Your task to perform on an android device: Go to location settings Image 0: 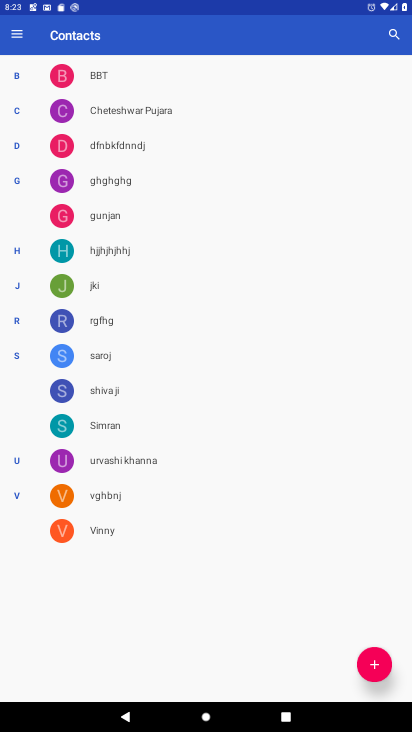
Step 0: press home button
Your task to perform on an android device: Go to location settings Image 1: 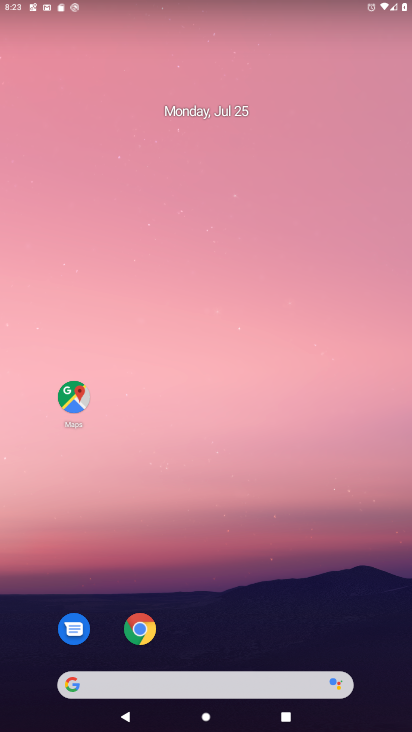
Step 1: drag from (199, 683) to (269, 30)
Your task to perform on an android device: Go to location settings Image 2: 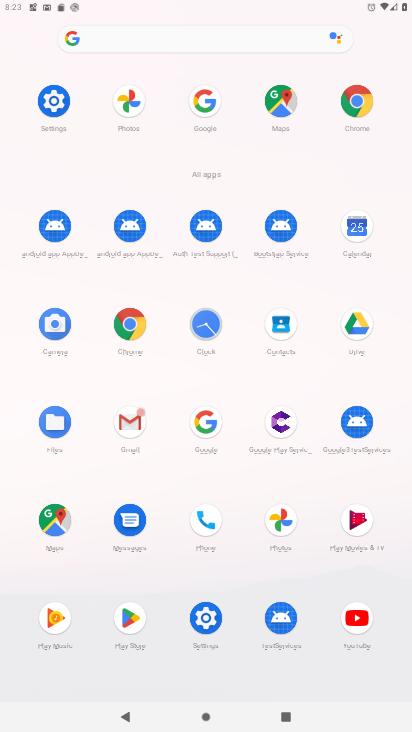
Step 2: click (51, 101)
Your task to perform on an android device: Go to location settings Image 3: 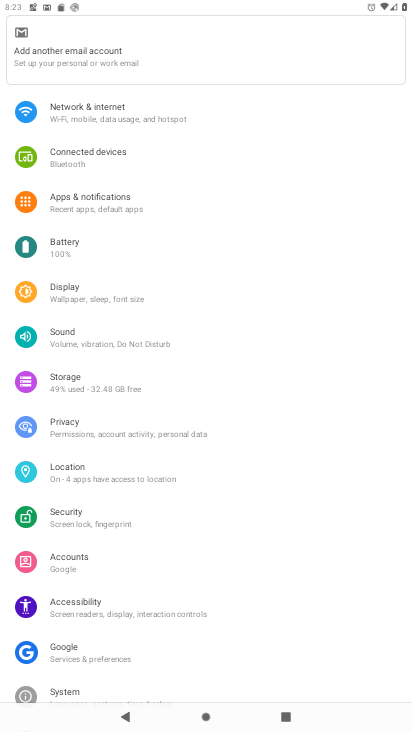
Step 3: click (86, 474)
Your task to perform on an android device: Go to location settings Image 4: 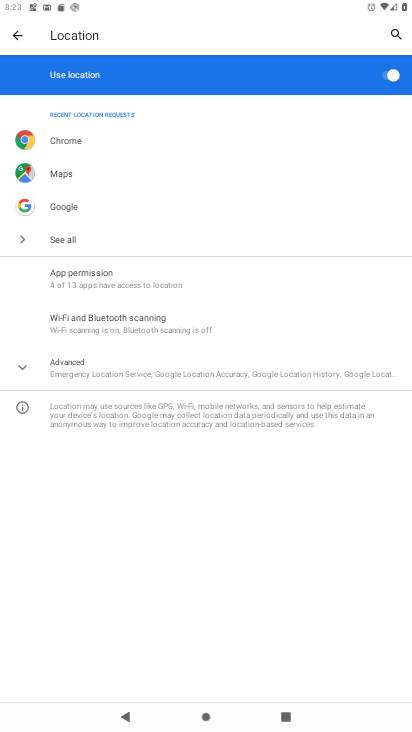
Step 4: task complete